Your task to perform on an android device: visit the assistant section in the google photos Image 0: 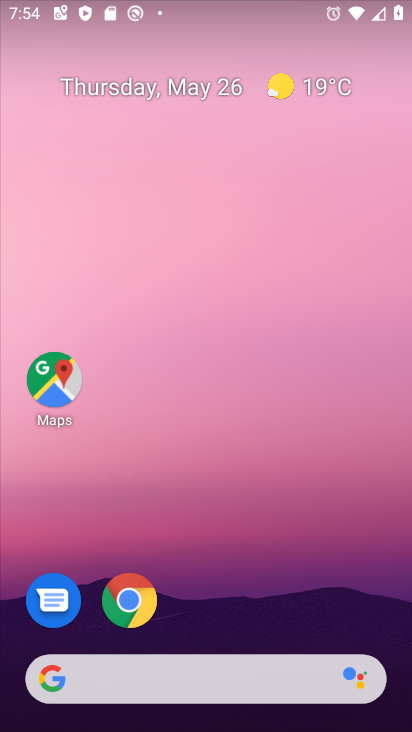
Step 0: press home button
Your task to perform on an android device: visit the assistant section in the google photos Image 1: 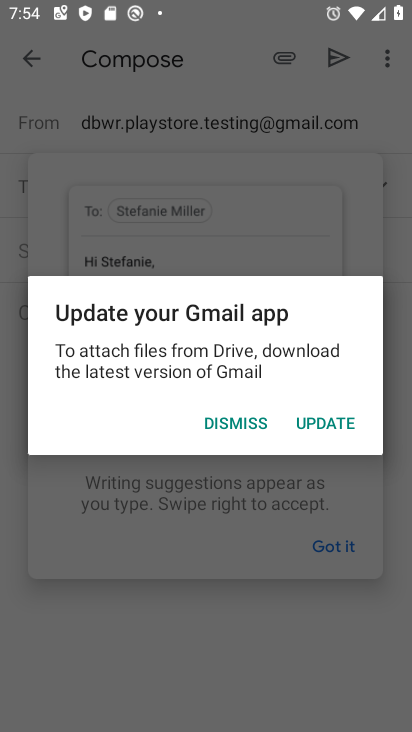
Step 1: press home button
Your task to perform on an android device: visit the assistant section in the google photos Image 2: 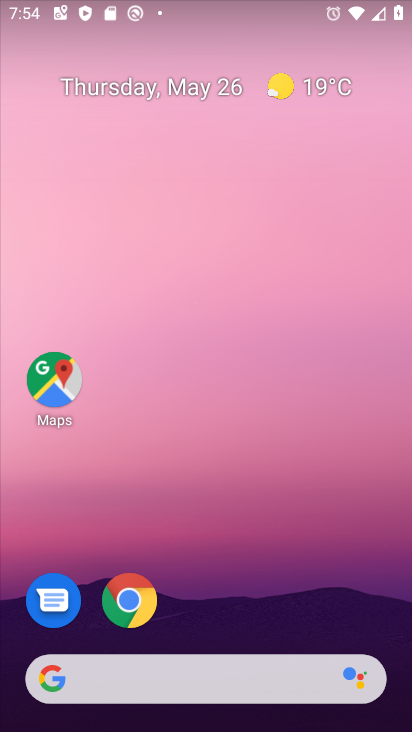
Step 2: drag from (265, 626) to (277, 126)
Your task to perform on an android device: visit the assistant section in the google photos Image 3: 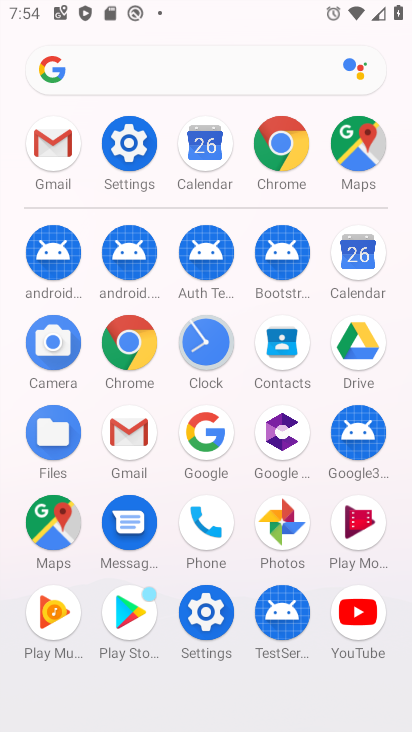
Step 3: click (279, 542)
Your task to perform on an android device: visit the assistant section in the google photos Image 4: 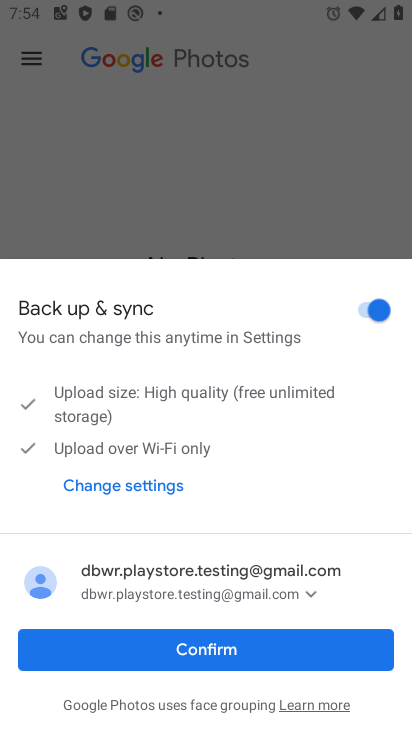
Step 4: click (231, 646)
Your task to perform on an android device: visit the assistant section in the google photos Image 5: 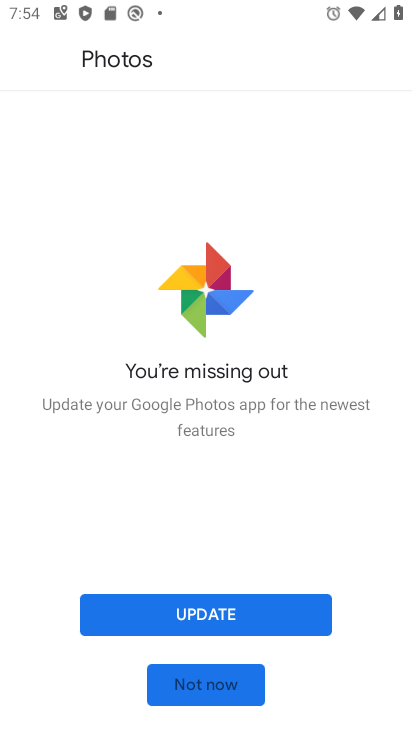
Step 5: click (192, 685)
Your task to perform on an android device: visit the assistant section in the google photos Image 6: 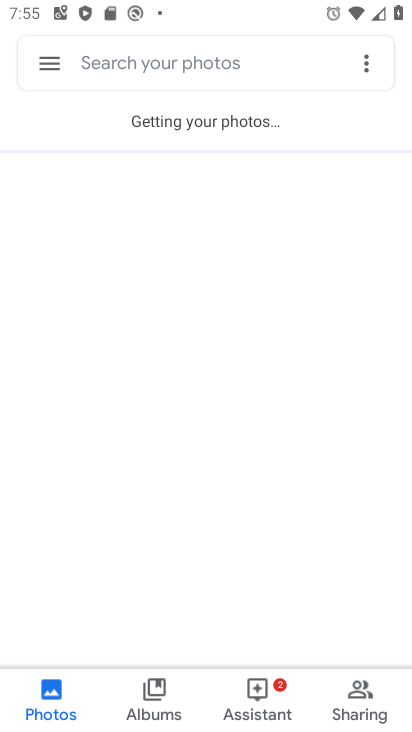
Step 6: click (258, 693)
Your task to perform on an android device: visit the assistant section in the google photos Image 7: 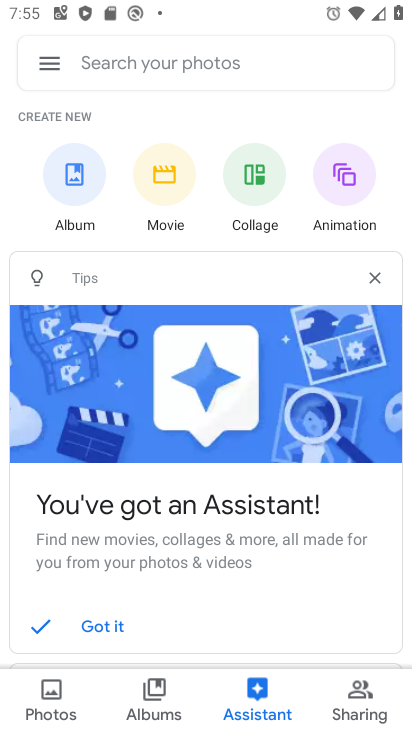
Step 7: click (273, 711)
Your task to perform on an android device: visit the assistant section in the google photos Image 8: 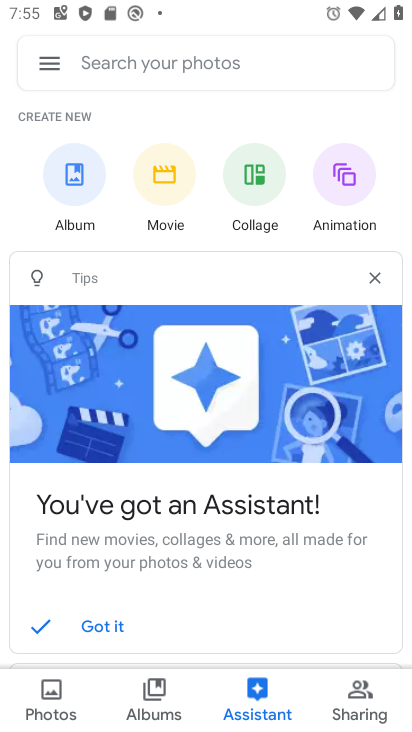
Step 8: task complete